Your task to perform on an android device: Show me popular games on the Play Store Image 0: 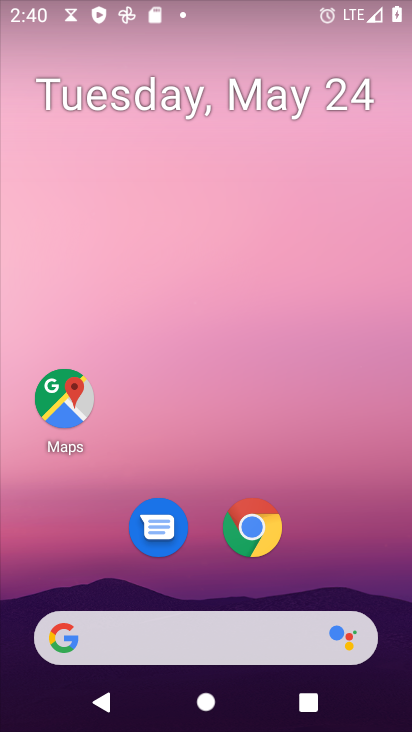
Step 0: press home button
Your task to perform on an android device: Show me popular games on the Play Store Image 1: 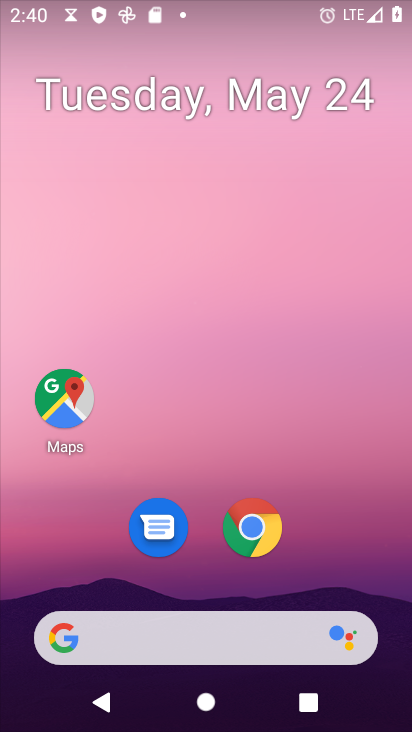
Step 1: drag from (204, 648) to (279, 176)
Your task to perform on an android device: Show me popular games on the Play Store Image 2: 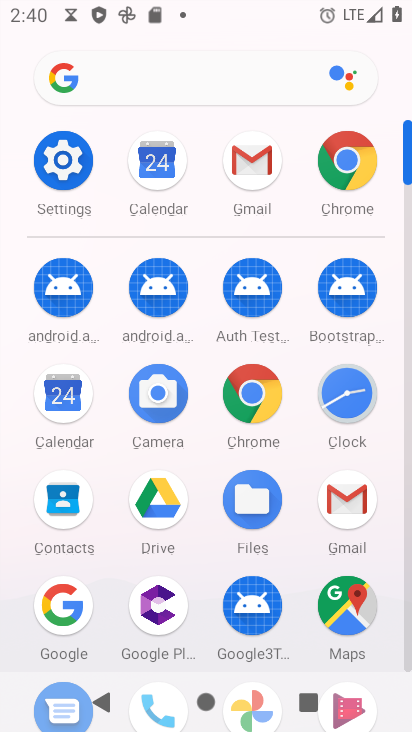
Step 2: drag from (187, 645) to (277, 205)
Your task to perform on an android device: Show me popular games on the Play Store Image 3: 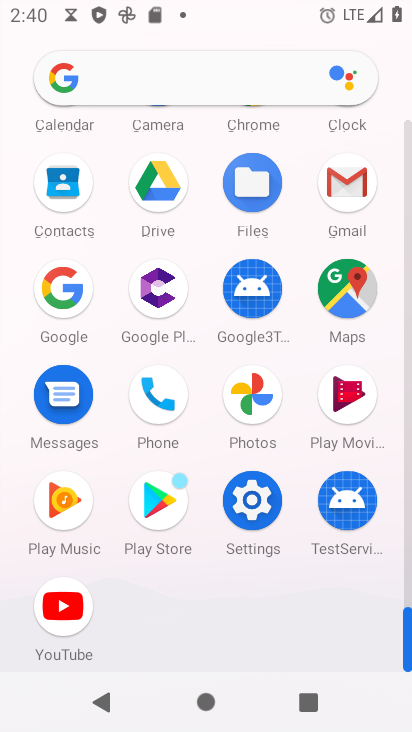
Step 3: click (171, 504)
Your task to perform on an android device: Show me popular games on the Play Store Image 4: 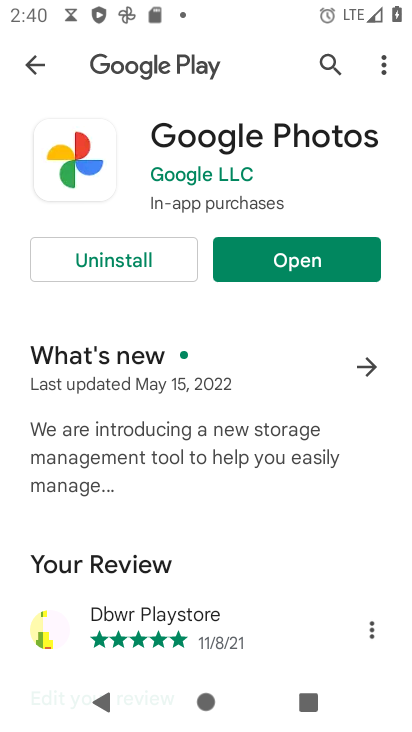
Step 4: click (31, 65)
Your task to perform on an android device: Show me popular games on the Play Store Image 5: 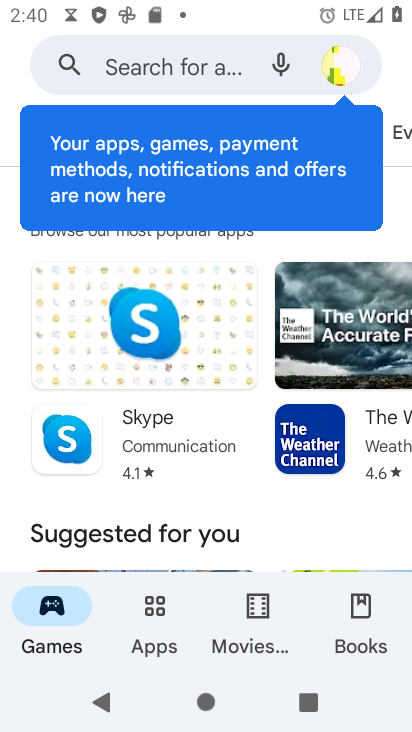
Step 5: drag from (134, 511) to (289, 89)
Your task to perform on an android device: Show me popular games on the Play Store Image 6: 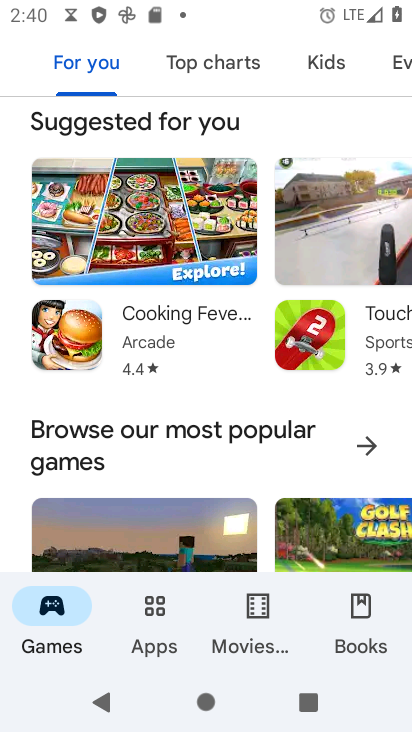
Step 6: drag from (128, 525) to (291, 66)
Your task to perform on an android device: Show me popular games on the Play Store Image 7: 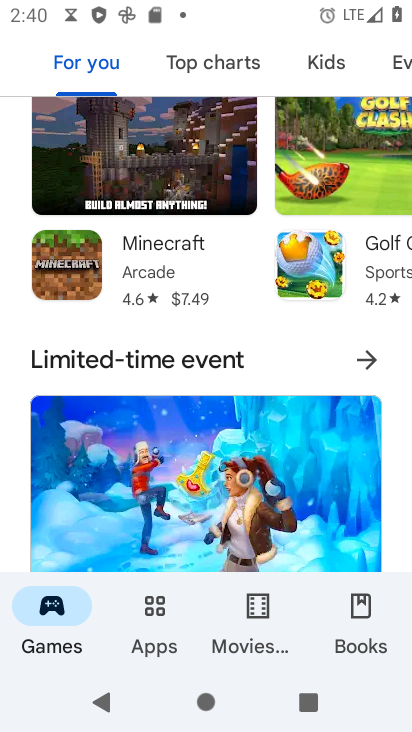
Step 7: drag from (177, 488) to (322, 67)
Your task to perform on an android device: Show me popular games on the Play Store Image 8: 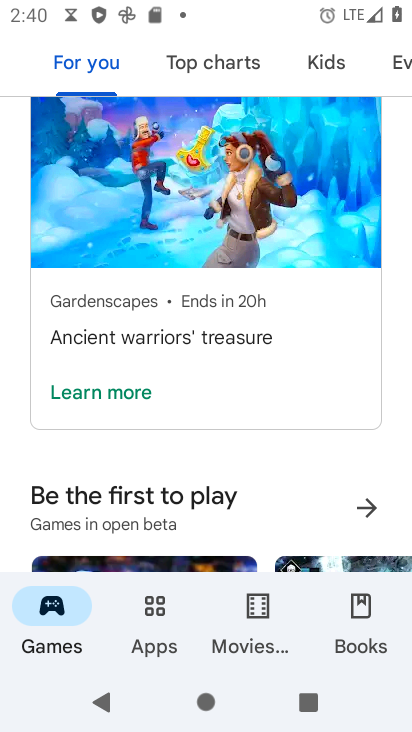
Step 8: drag from (211, 510) to (306, 91)
Your task to perform on an android device: Show me popular games on the Play Store Image 9: 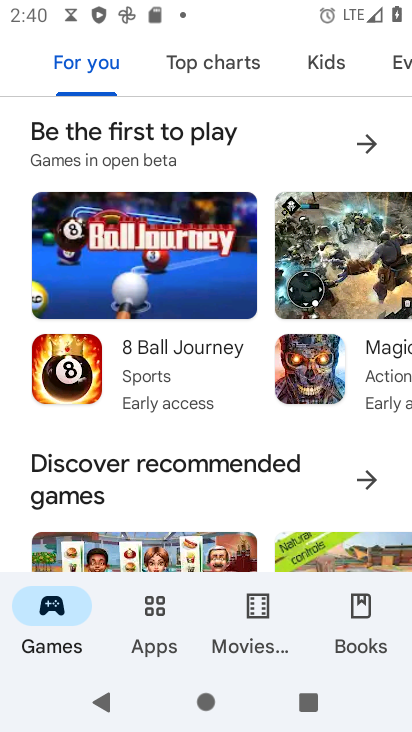
Step 9: drag from (197, 512) to (318, 149)
Your task to perform on an android device: Show me popular games on the Play Store Image 10: 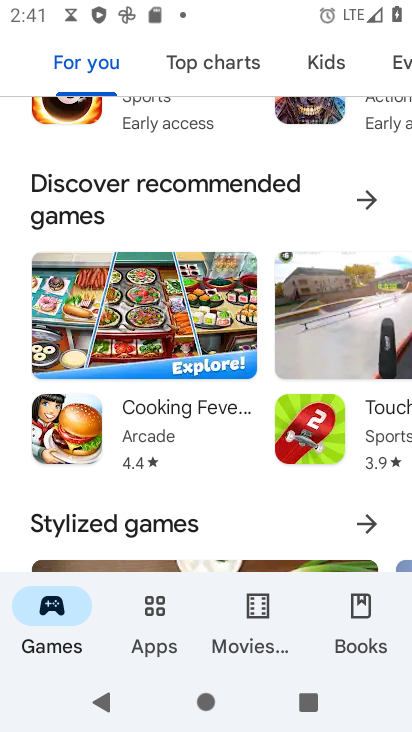
Step 10: drag from (234, 478) to (317, 62)
Your task to perform on an android device: Show me popular games on the Play Store Image 11: 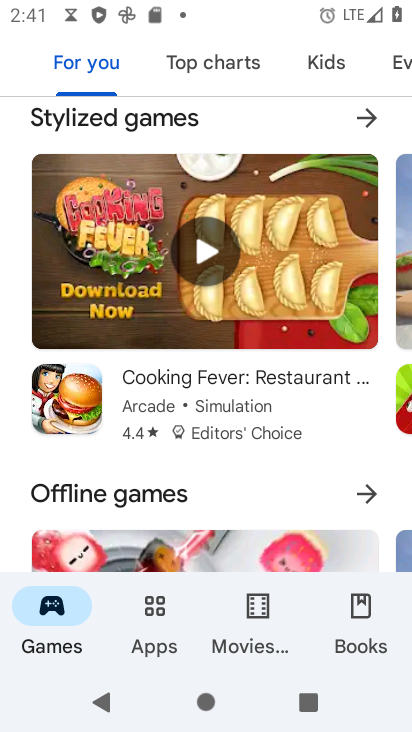
Step 11: drag from (302, 118) to (351, 502)
Your task to perform on an android device: Show me popular games on the Play Store Image 12: 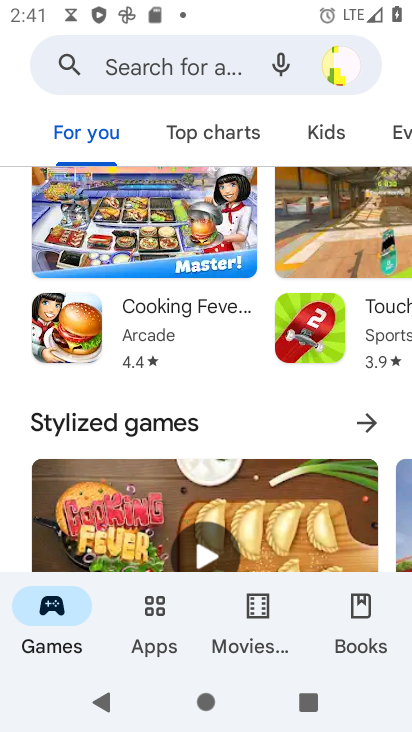
Step 12: drag from (303, 297) to (297, 552)
Your task to perform on an android device: Show me popular games on the Play Store Image 13: 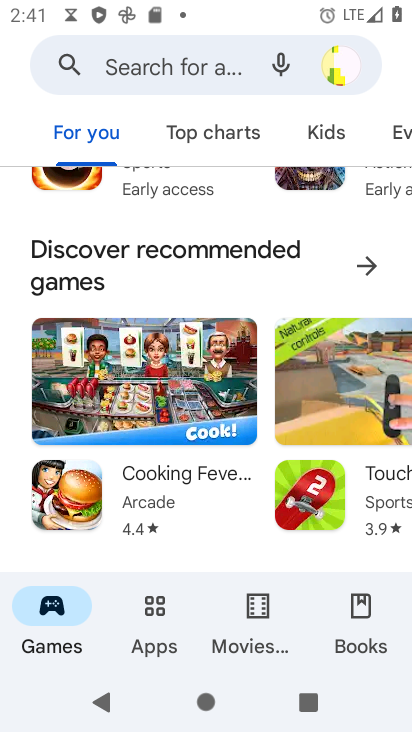
Step 13: drag from (227, 281) to (247, 566)
Your task to perform on an android device: Show me popular games on the Play Store Image 14: 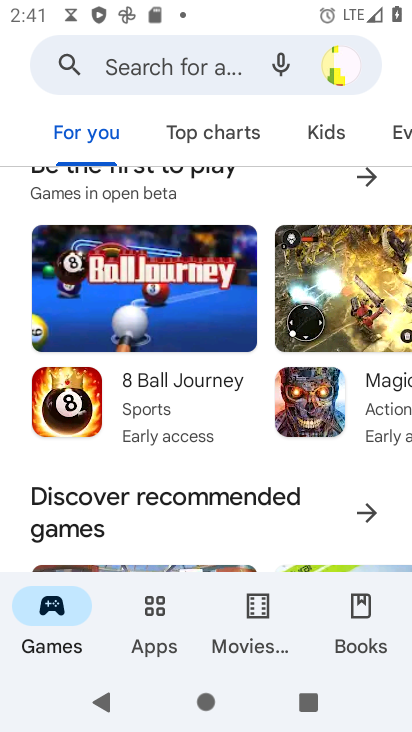
Step 14: drag from (234, 221) to (280, 550)
Your task to perform on an android device: Show me popular games on the Play Store Image 15: 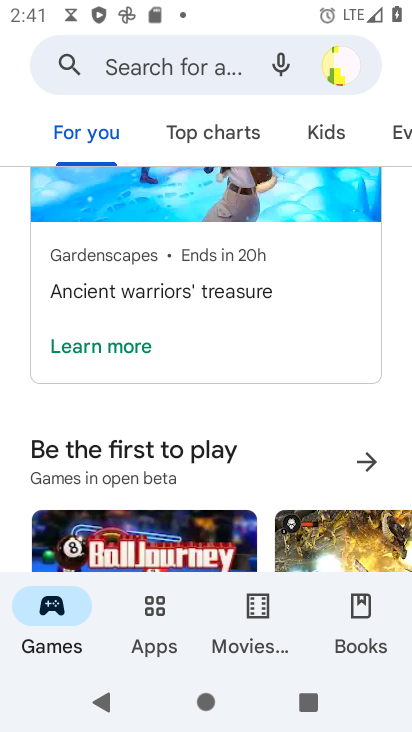
Step 15: drag from (251, 284) to (286, 558)
Your task to perform on an android device: Show me popular games on the Play Store Image 16: 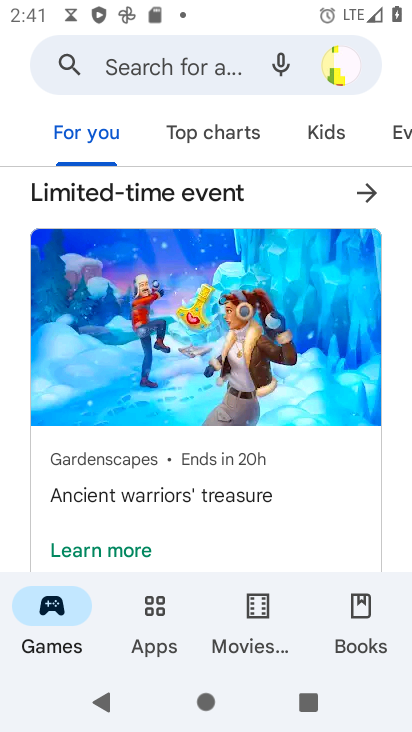
Step 16: drag from (261, 258) to (309, 545)
Your task to perform on an android device: Show me popular games on the Play Store Image 17: 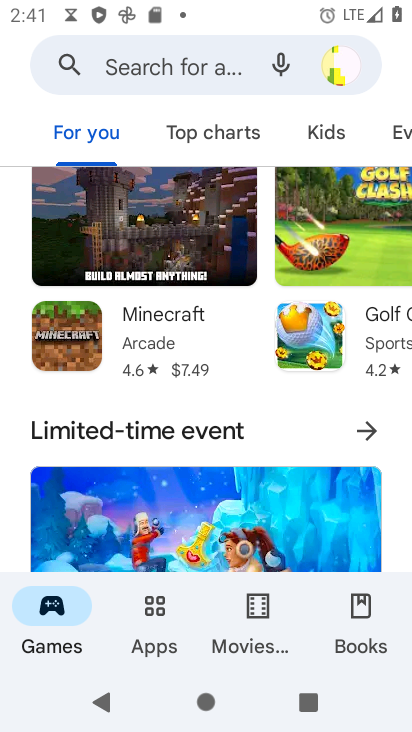
Step 17: drag from (264, 234) to (343, 605)
Your task to perform on an android device: Show me popular games on the Play Store Image 18: 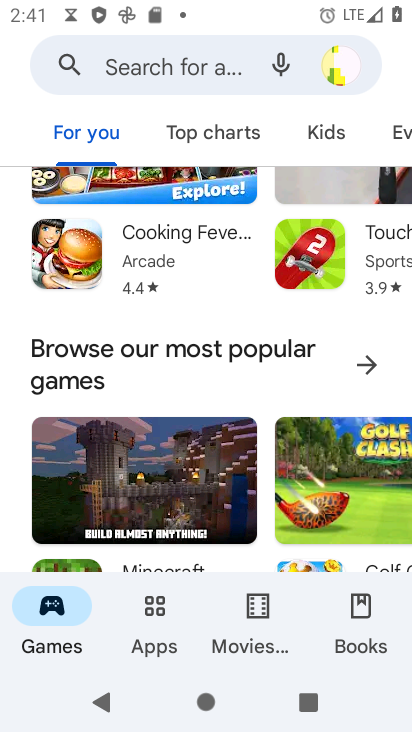
Step 18: click (278, 346)
Your task to perform on an android device: Show me popular games on the Play Store Image 19: 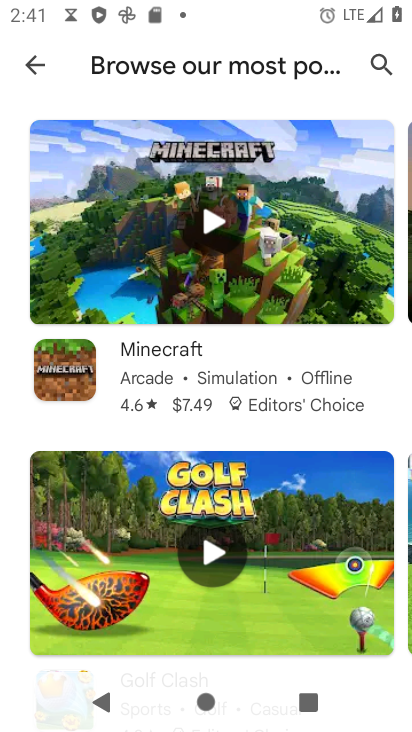
Step 19: task complete